Your task to perform on an android device: choose inbox layout in the gmail app Image 0: 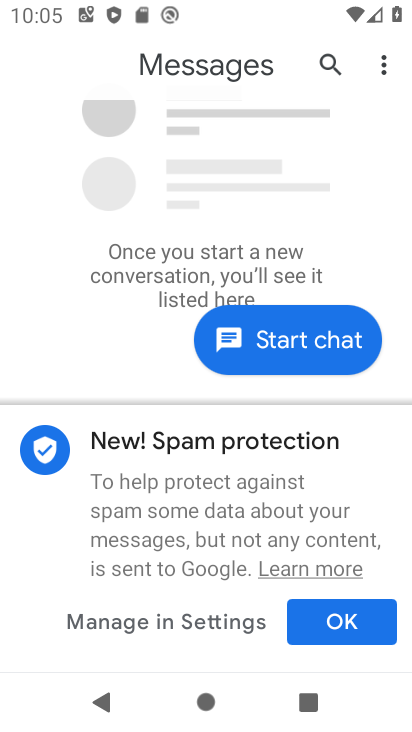
Step 0: press home button
Your task to perform on an android device: choose inbox layout in the gmail app Image 1: 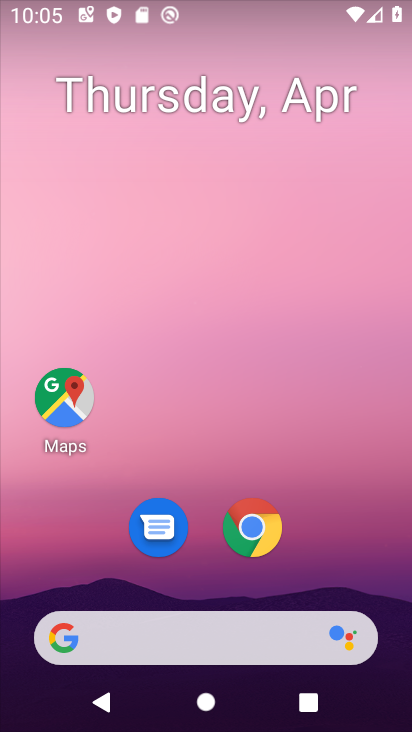
Step 1: drag from (334, 563) to (284, 18)
Your task to perform on an android device: choose inbox layout in the gmail app Image 2: 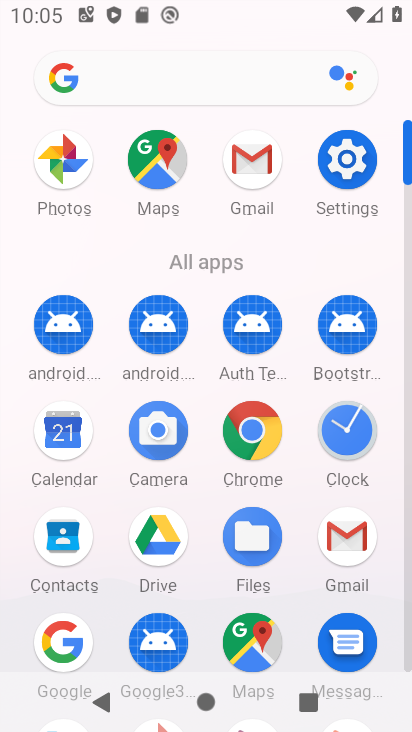
Step 2: click (256, 196)
Your task to perform on an android device: choose inbox layout in the gmail app Image 3: 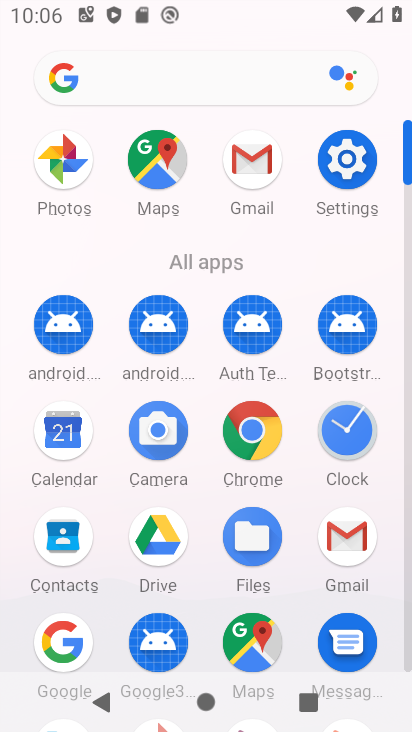
Step 3: click (257, 171)
Your task to perform on an android device: choose inbox layout in the gmail app Image 4: 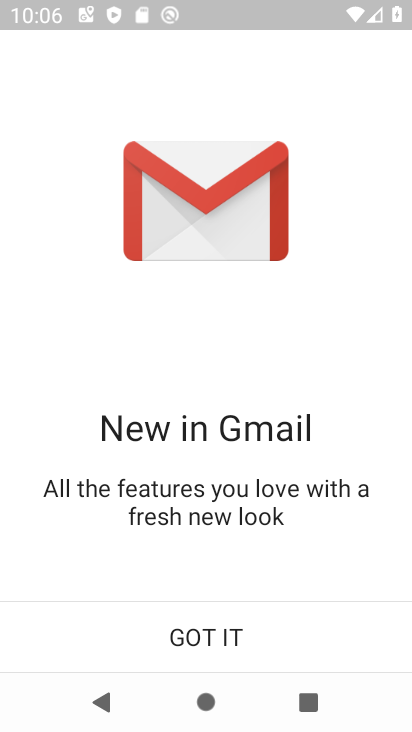
Step 4: click (206, 638)
Your task to perform on an android device: choose inbox layout in the gmail app Image 5: 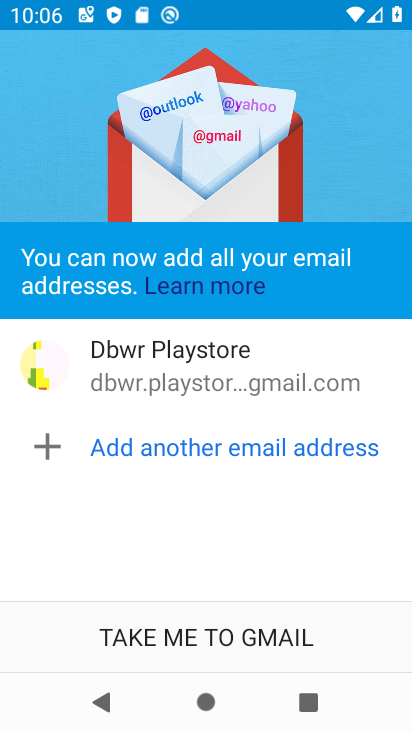
Step 5: click (206, 638)
Your task to perform on an android device: choose inbox layout in the gmail app Image 6: 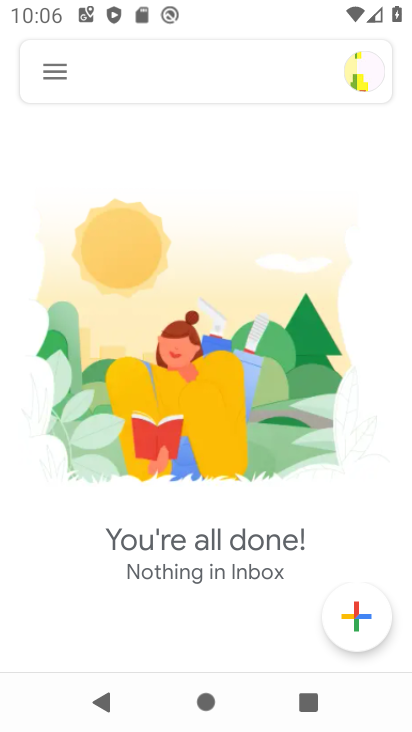
Step 6: click (47, 48)
Your task to perform on an android device: choose inbox layout in the gmail app Image 7: 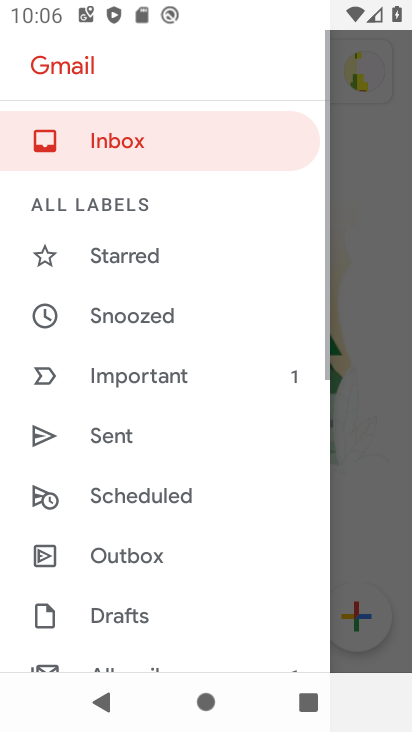
Step 7: drag from (238, 500) to (210, 269)
Your task to perform on an android device: choose inbox layout in the gmail app Image 8: 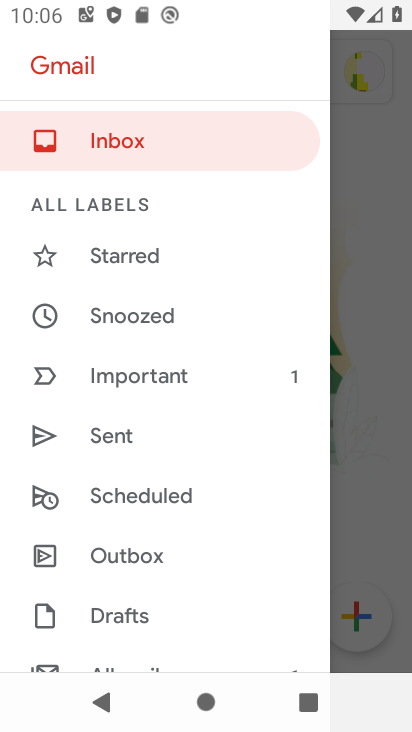
Step 8: drag from (109, 567) to (76, 183)
Your task to perform on an android device: choose inbox layout in the gmail app Image 9: 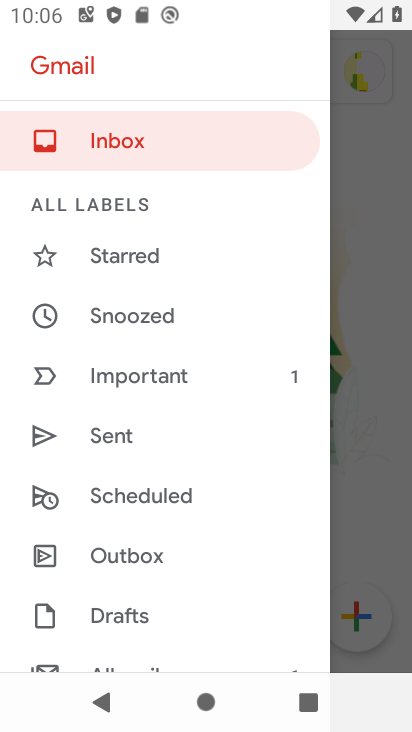
Step 9: drag from (218, 645) to (188, 212)
Your task to perform on an android device: choose inbox layout in the gmail app Image 10: 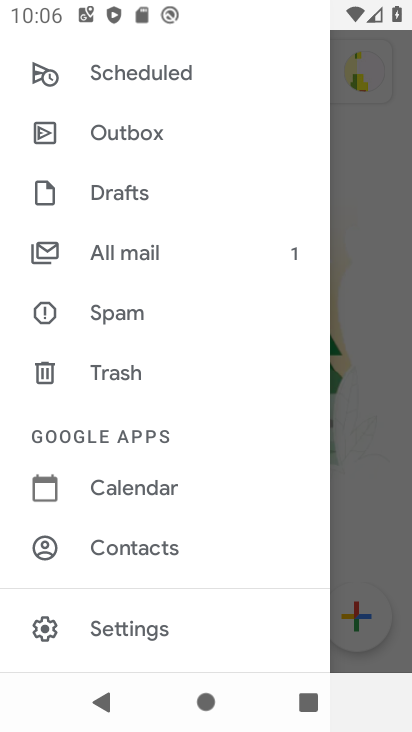
Step 10: click (161, 629)
Your task to perform on an android device: choose inbox layout in the gmail app Image 11: 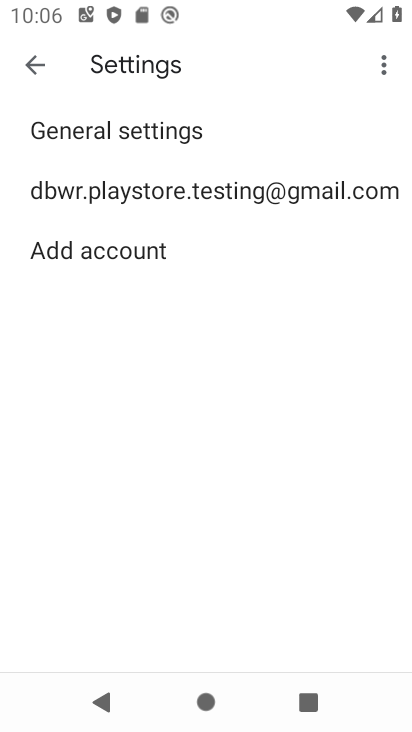
Step 11: click (125, 188)
Your task to perform on an android device: choose inbox layout in the gmail app Image 12: 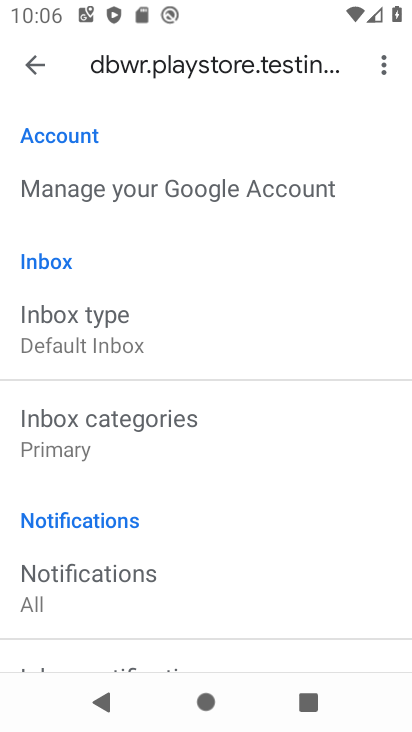
Step 12: drag from (167, 556) to (221, 108)
Your task to perform on an android device: choose inbox layout in the gmail app Image 13: 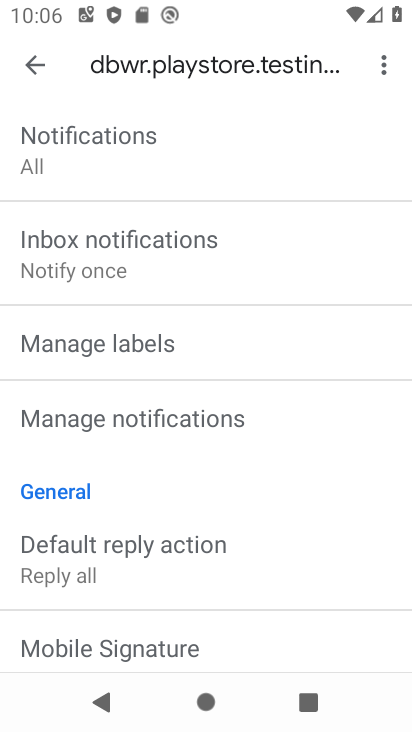
Step 13: drag from (262, 536) to (286, 163)
Your task to perform on an android device: choose inbox layout in the gmail app Image 14: 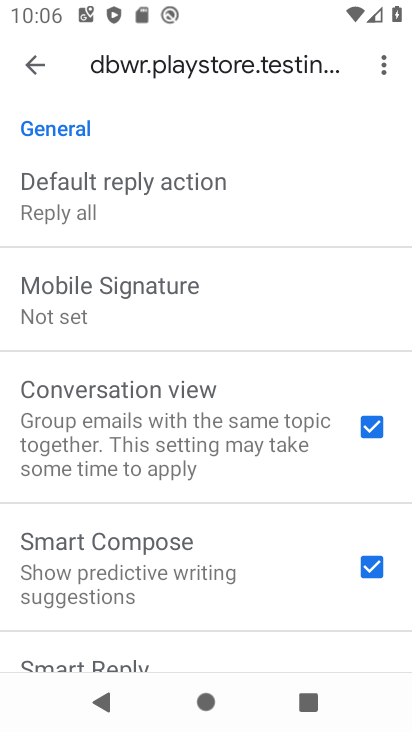
Step 14: drag from (286, 163) to (240, 577)
Your task to perform on an android device: choose inbox layout in the gmail app Image 15: 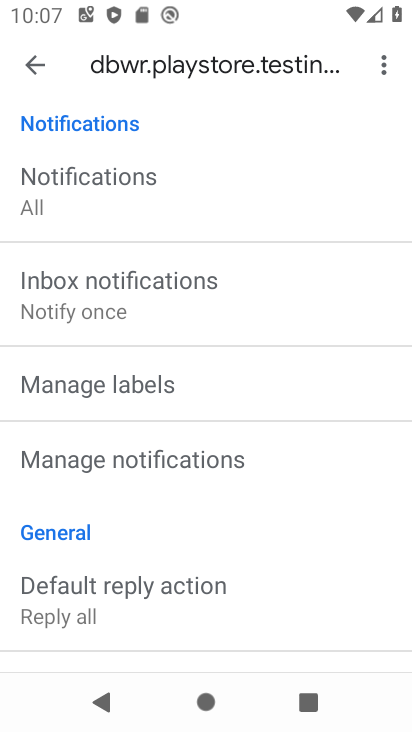
Step 15: drag from (206, 352) to (230, 640)
Your task to perform on an android device: choose inbox layout in the gmail app Image 16: 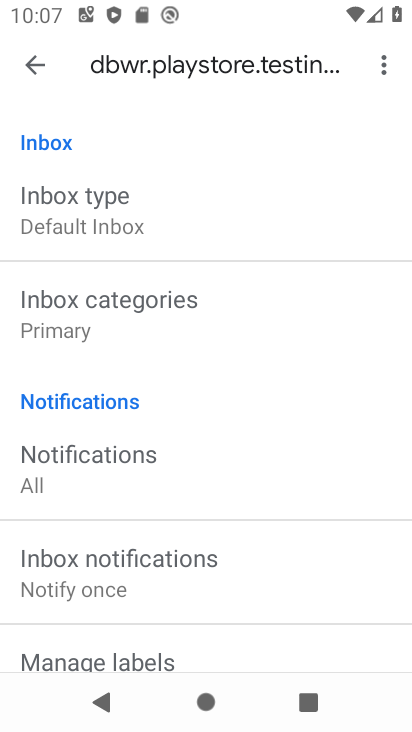
Step 16: drag from (257, 236) to (245, 585)
Your task to perform on an android device: choose inbox layout in the gmail app Image 17: 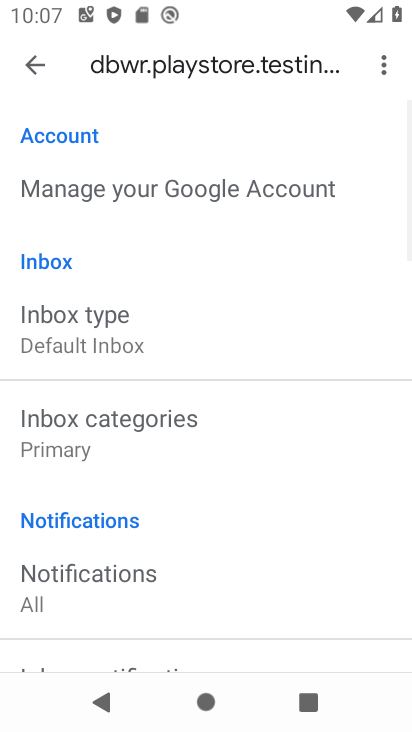
Step 17: click (71, 333)
Your task to perform on an android device: choose inbox layout in the gmail app Image 18: 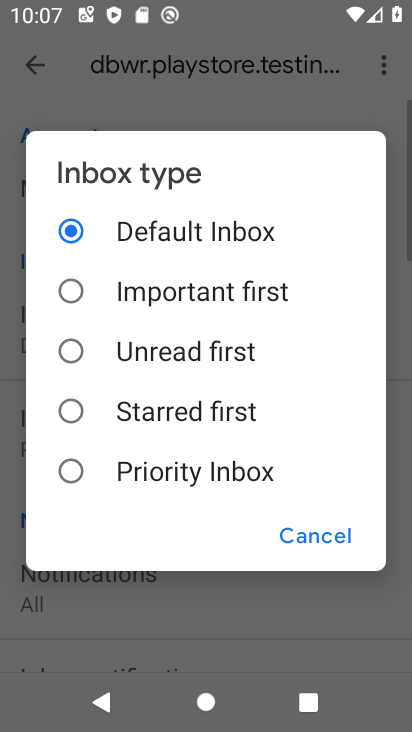
Step 18: click (74, 280)
Your task to perform on an android device: choose inbox layout in the gmail app Image 19: 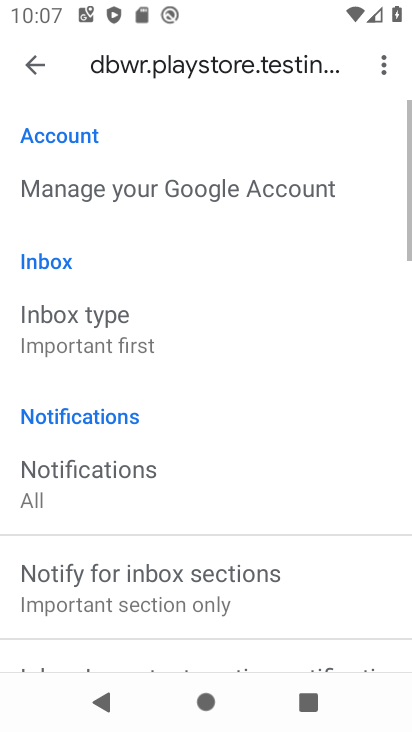
Step 19: task complete